Your task to perform on an android device: Open Wikipedia Image 0: 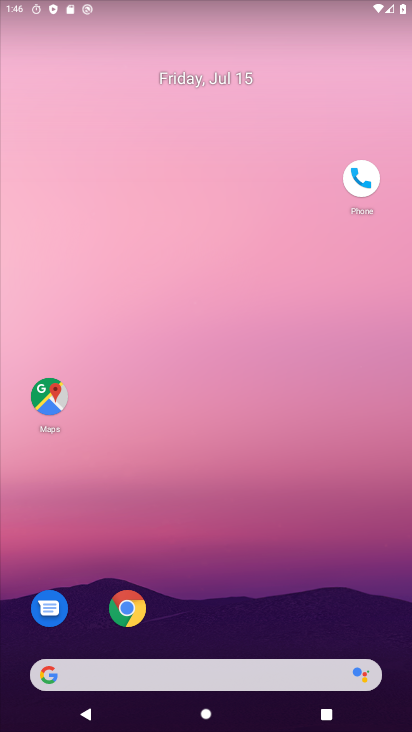
Step 0: drag from (194, 610) to (259, 334)
Your task to perform on an android device: Open Wikipedia Image 1: 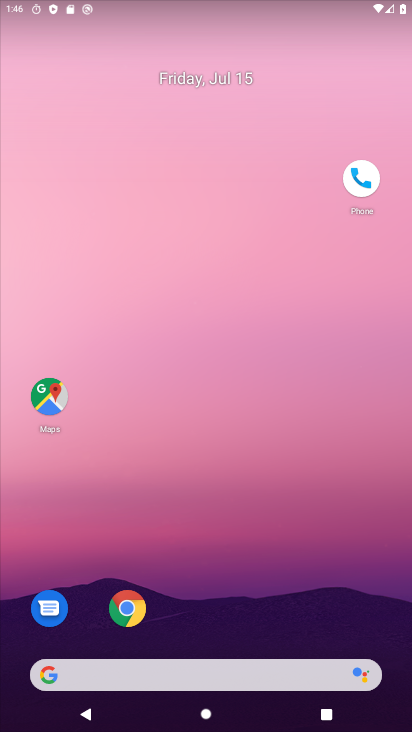
Step 1: drag from (206, 637) to (275, 67)
Your task to perform on an android device: Open Wikipedia Image 2: 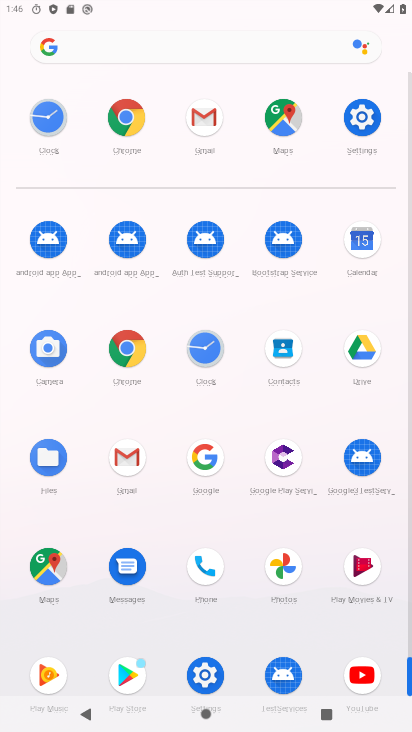
Step 2: click (144, 37)
Your task to perform on an android device: Open Wikipedia Image 3: 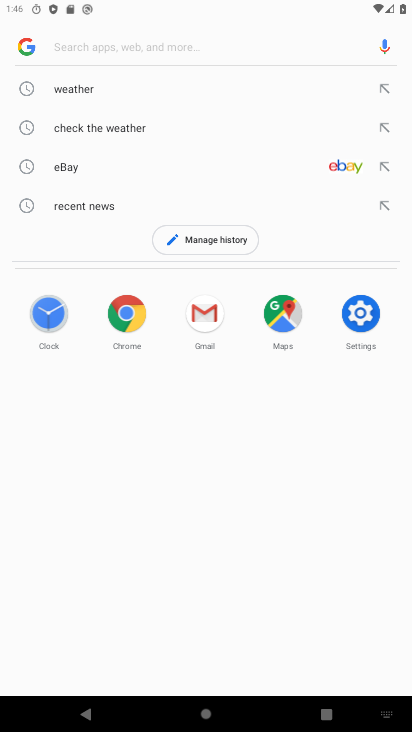
Step 3: type "wikipedia"
Your task to perform on an android device: Open Wikipedia Image 4: 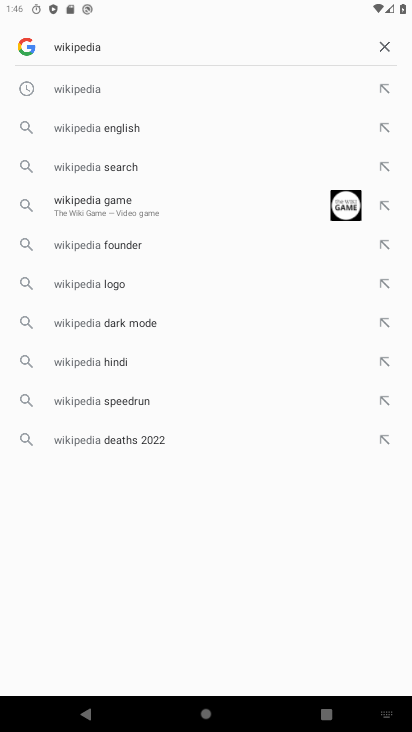
Step 4: click (71, 88)
Your task to perform on an android device: Open Wikipedia Image 5: 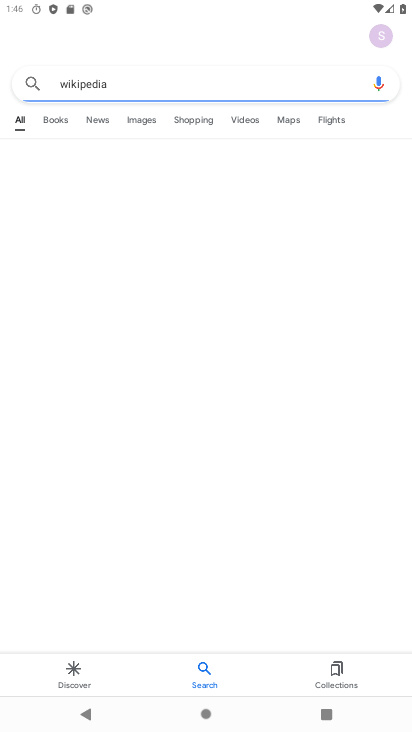
Step 5: drag from (169, 560) to (278, 197)
Your task to perform on an android device: Open Wikipedia Image 6: 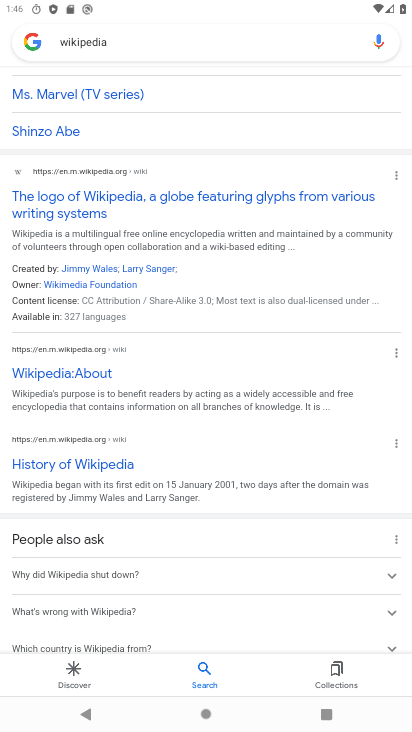
Step 6: drag from (182, 186) to (225, 672)
Your task to perform on an android device: Open Wikipedia Image 7: 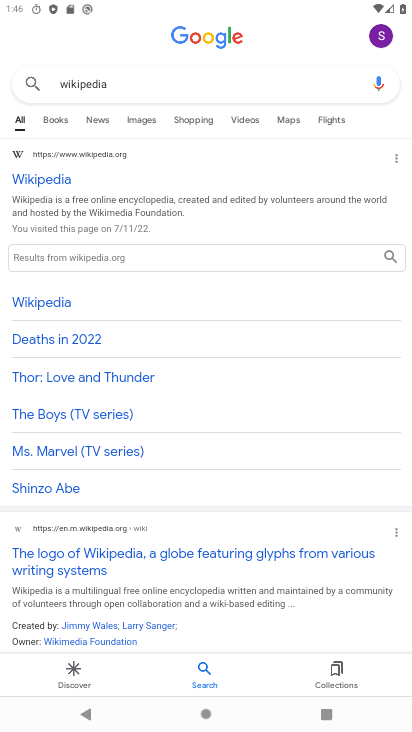
Step 7: click (42, 178)
Your task to perform on an android device: Open Wikipedia Image 8: 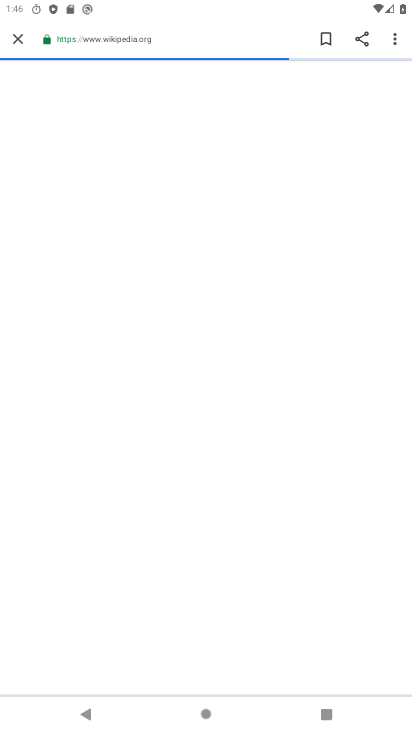
Step 8: task complete